Your task to perform on an android device: Open the map Image 0: 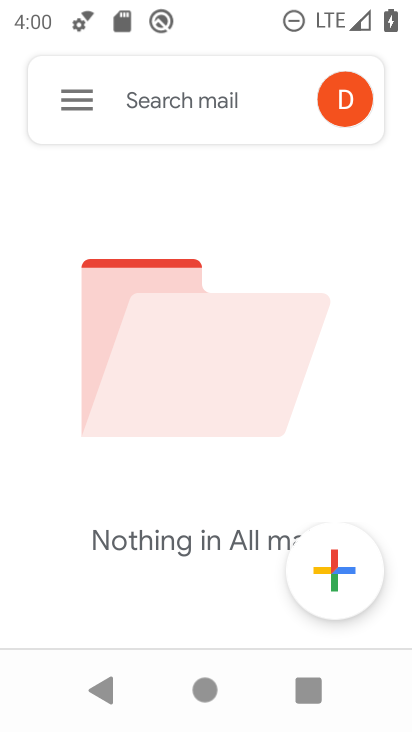
Step 0: press home button
Your task to perform on an android device: Open the map Image 1: 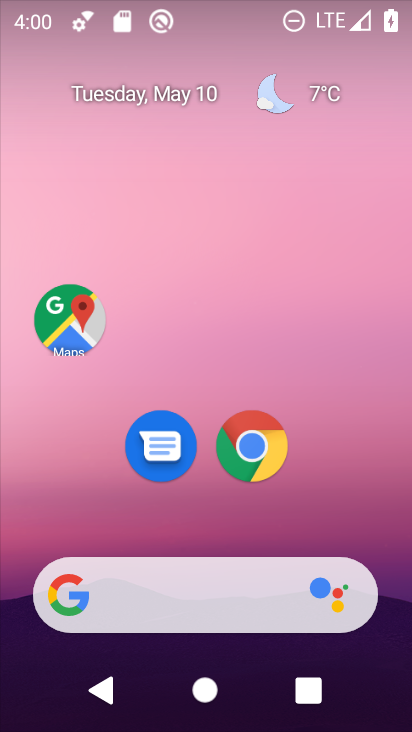
Step 1: click (75, 334)
Your task to perform on an android device: Open the map Image 2: 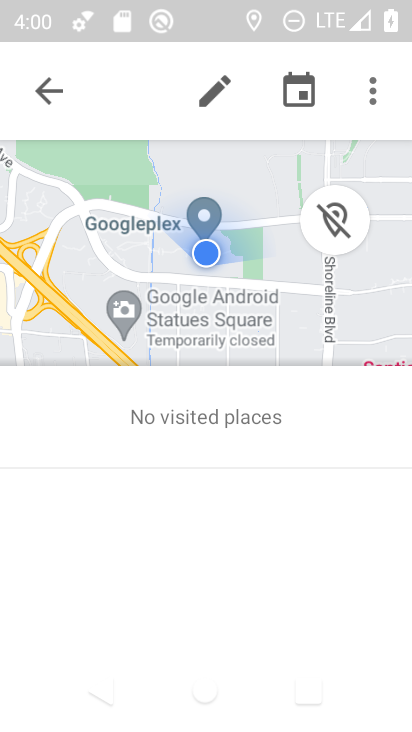
Step 2: task complete